Your task to perform on an android device: turn notification dots off Image 0: 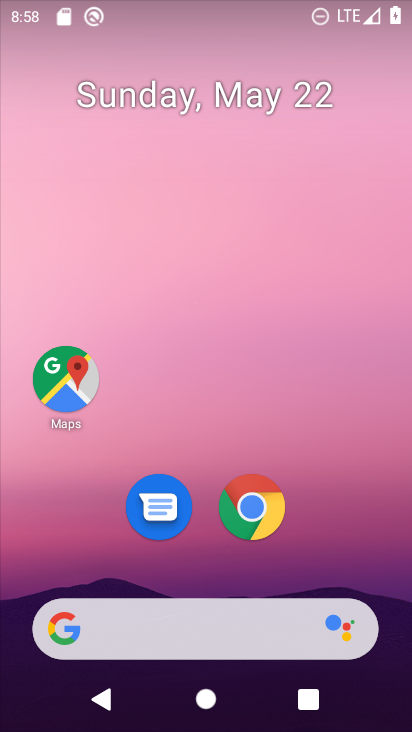
Step 0: drag from (241, 691) to (235, 108)
Your task to perform on an android device: turn notification dots off Image 1: 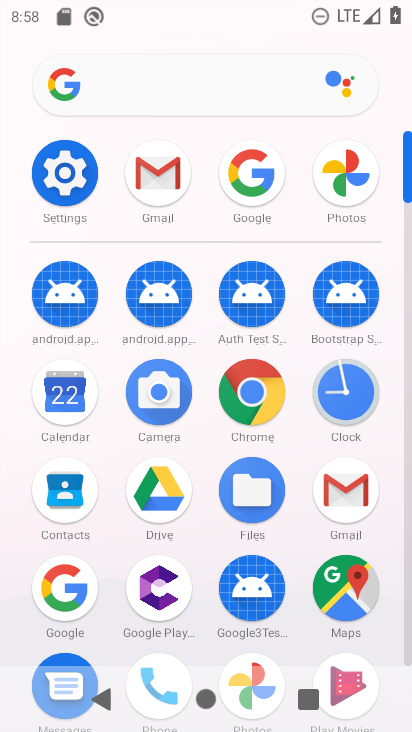
Step 1: click (70, 174)
Your task to perform on an android device: turn notification dots off Image 2: 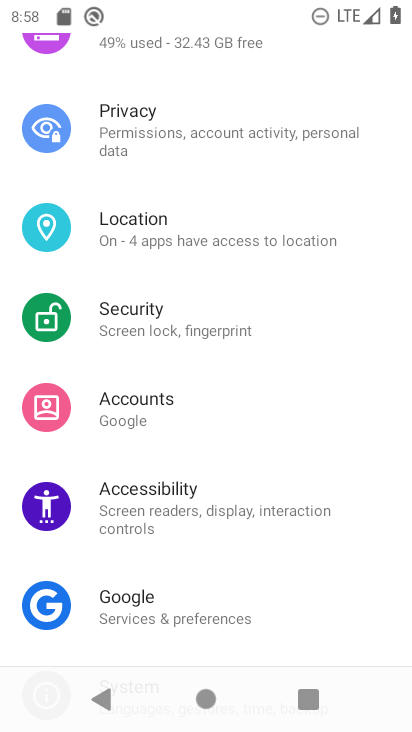
Step 2: drag from (283, 135) to (275, 638)
Your task to perform on an android device: turn notification dots off Image 3: 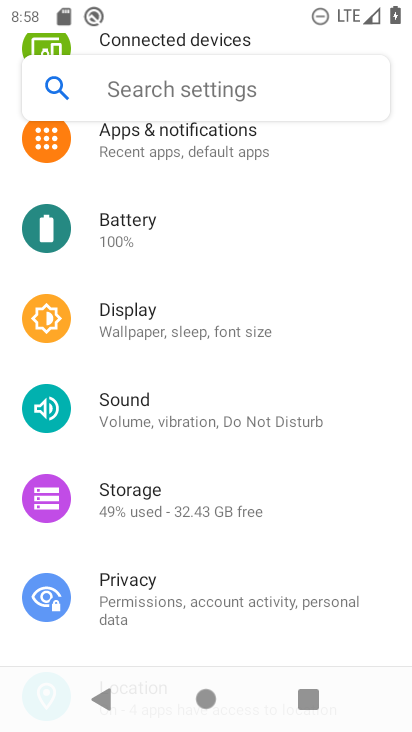
Step 3: click (294, 160)
Your task to perform on an android device: turn notification dots off Image 4: 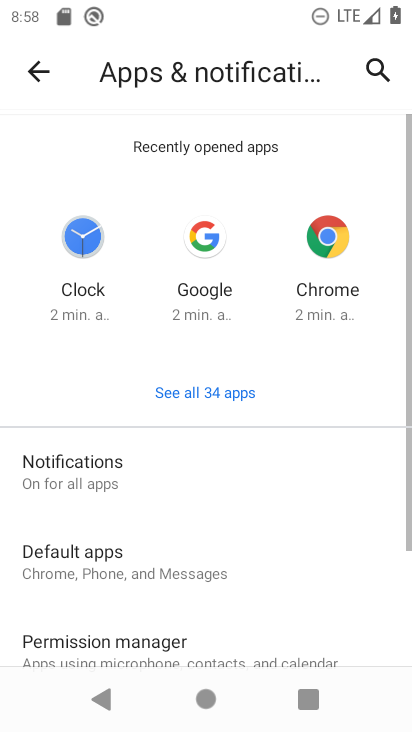
Step 4: click (102, 478)
Your task to perform on an android device: turn notification dots off Image 5: 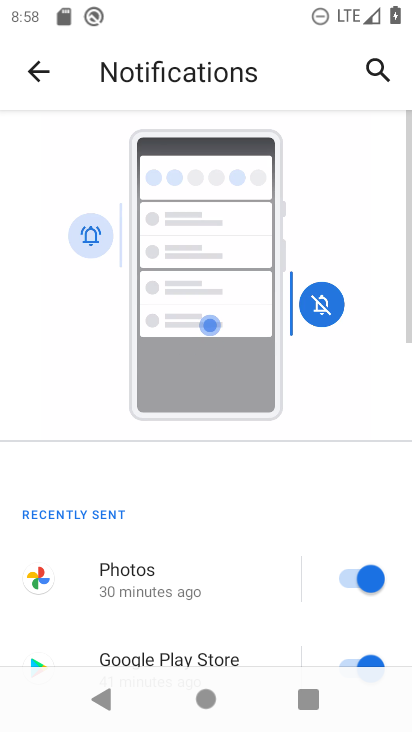
Step 5: drag from (135, 565) to (77, 109)
Your task to perform on an android device: turn notification dots off Image 6: 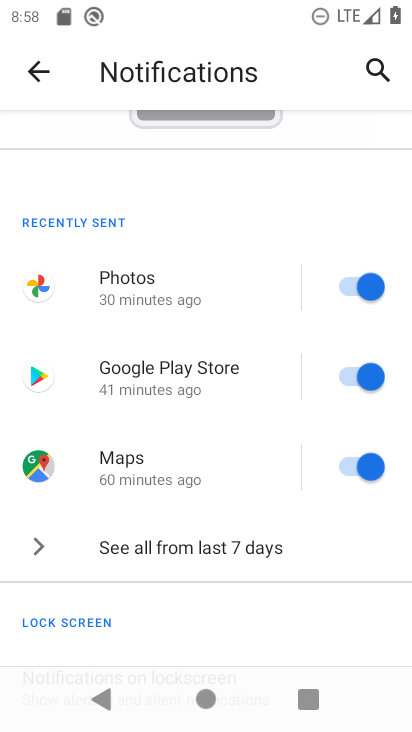
Step 6: drag from (116, 587) to (119, 209)
Your task to perform on an android device: turn notification dots off Image 7: 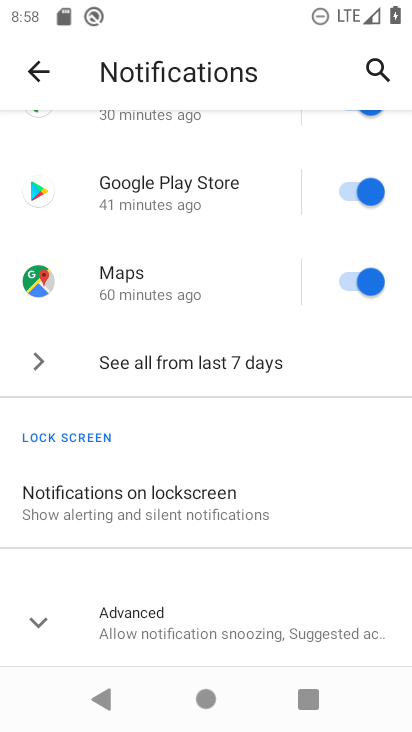
Step 7: click (278, 646)
Your task to perform on an android device: turn notification dots off Image 8: 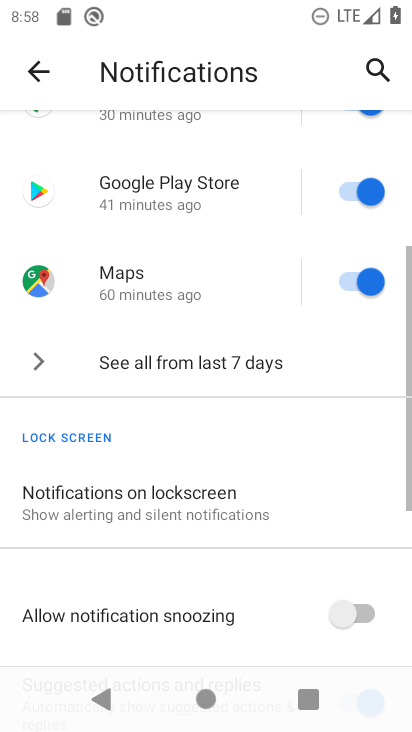
Step 8: drag from (268, 630) to (212, 130)
Your task to perform on an android device: turn notification dots off Image 9: 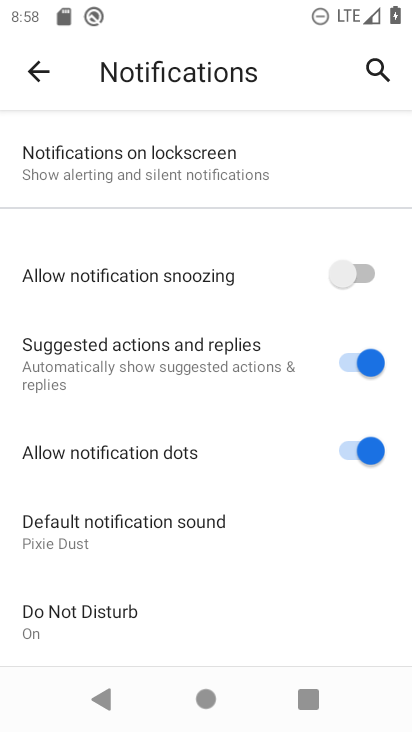
Step 9: click (373, 443)
Your task to perform on an android device: turn notification dots off Image 10: 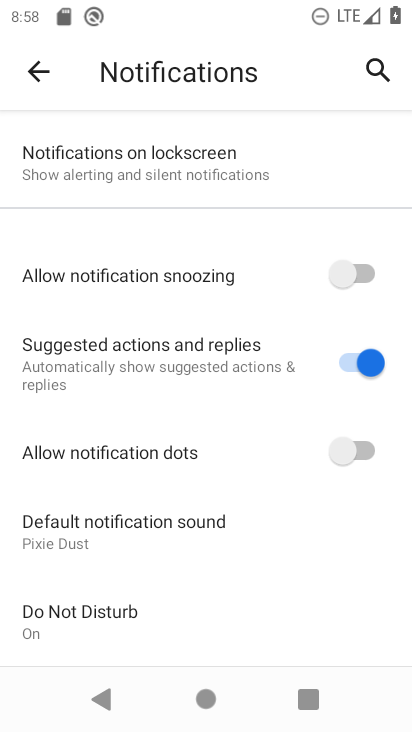
Step 10: task complete